Your task to perform on an android device: uninstall "Pandora - Music & Podcasts" Image 0: 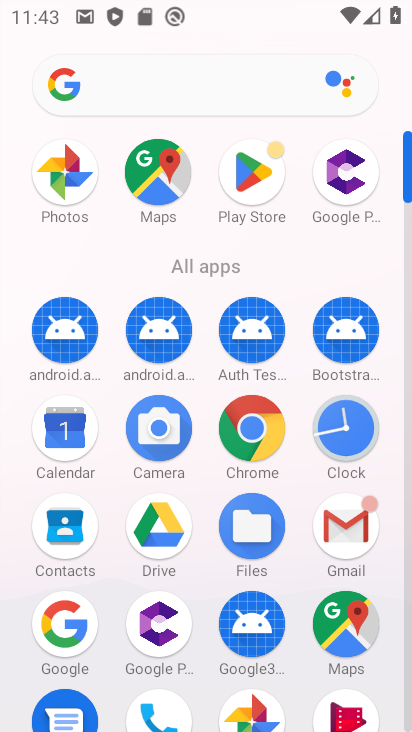
Step 0: click (278, 155)
Your task to perform on an android device: uninstall "Pandora - Music & Podcasts" Image 1: 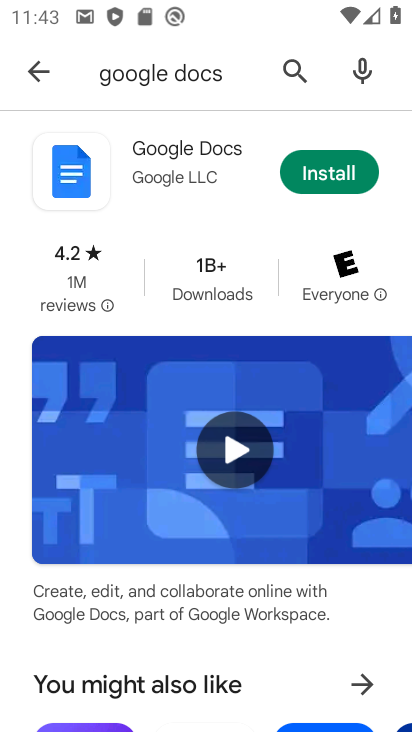
Step 1: click (296, 63)
Your task to perform on an android device: uninstall "Pandora - Music & Podcasts" Image 2: 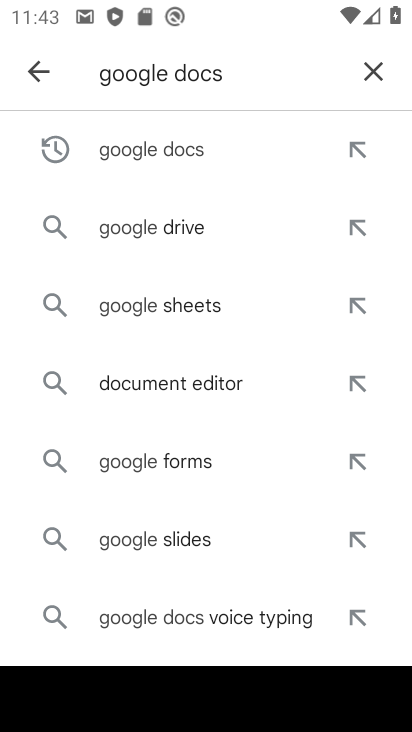
Step 2: click (376, 67)
Your task to perform on an android device: uninstall "Pandora - Music & Podcasts" Image 3: 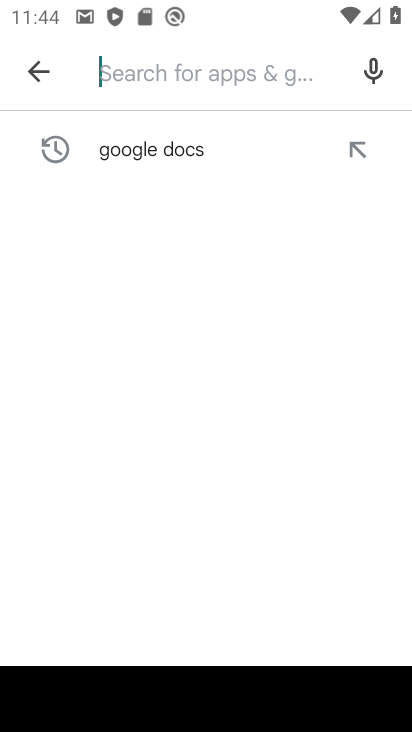
Step 3: type "pandora"
Your task to perform on an android device: uninstall "Pandora - Music & Podcasts" Image 4: 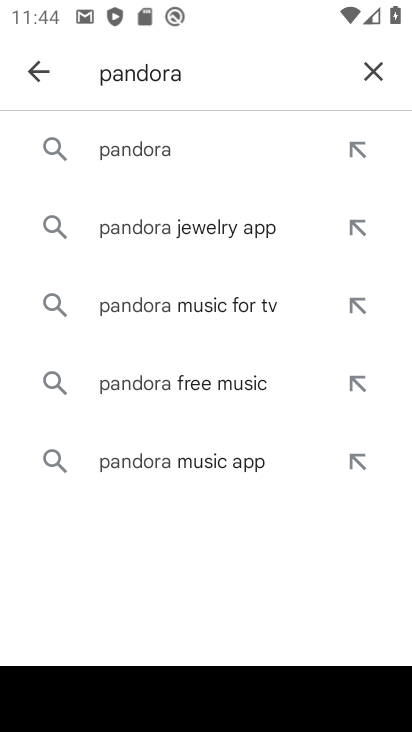
Step 4: click (163, 156)
Your task to perform on an android device: uninstall "Pandora - Music & Podcasts" Image 5: 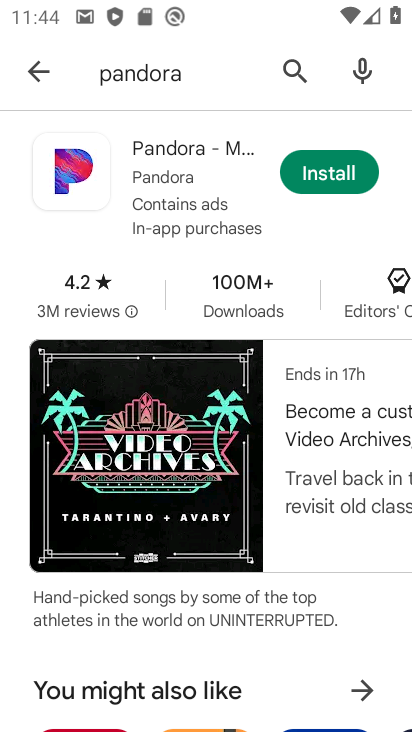
Step 5: task complete